Your task to perform on an android device: turn off notifications settings in the gmail app Image 0: 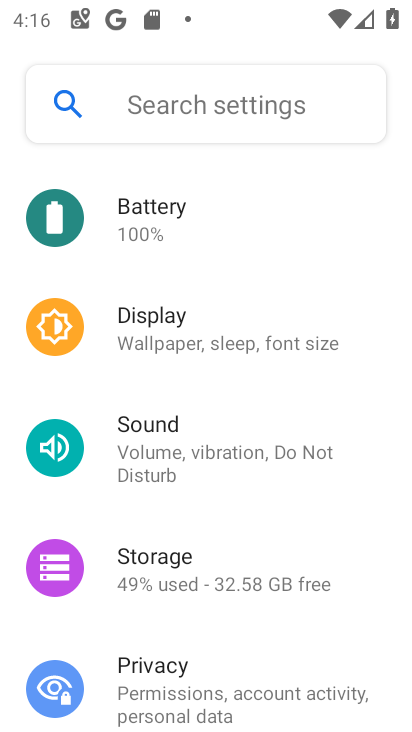
Step 0: press home button
Your task to perform on an android device: turn off notifications settings in the gmail app Image 1: 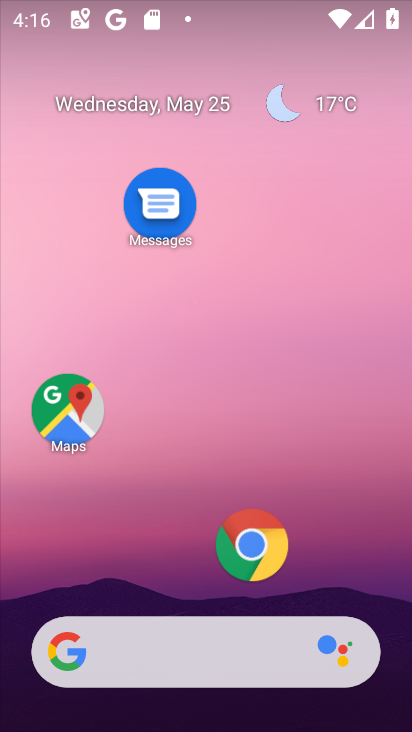
Step 1: drag from (322, 569) to (328, 19)
Your task to perform on an android device: turn off notifications settings in the gmail app Image 2: 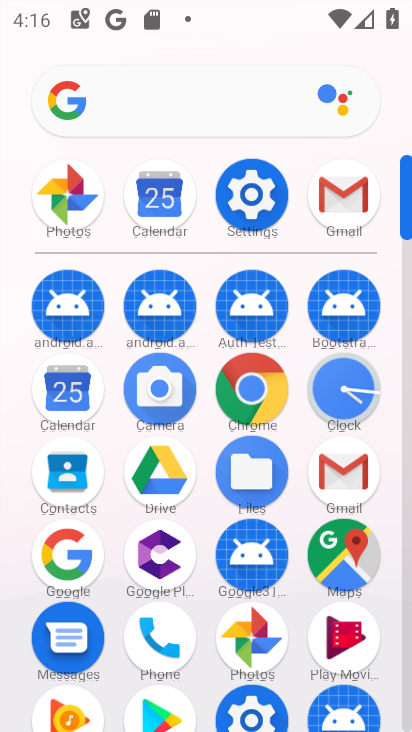
Step 2: click (337, 479)
Your task to perform on an android device: turn off notifications settings in the gmail app Image 3: 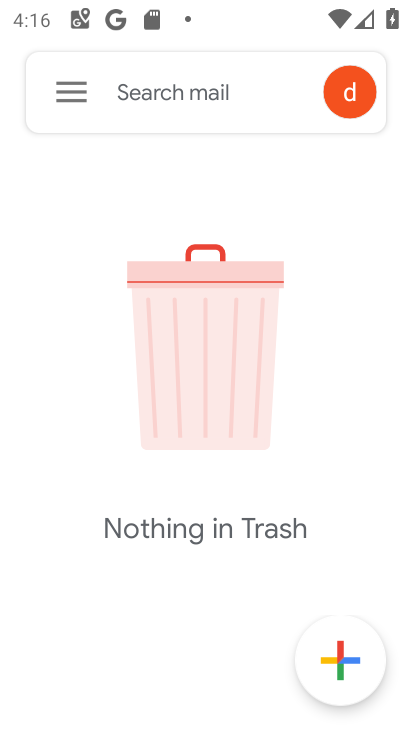
Step 3: click (59, 106)
Your task to perform on an android device: turn off notifications settings in the gmail app Image 4: 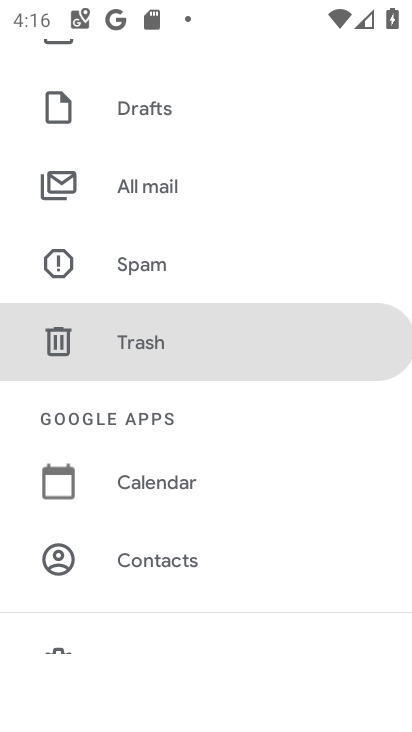
Step 4: drag from (237, 594) to (249, 296)
Your task to perform on an android device: turn off notifications settings in the gmail app Image 5: 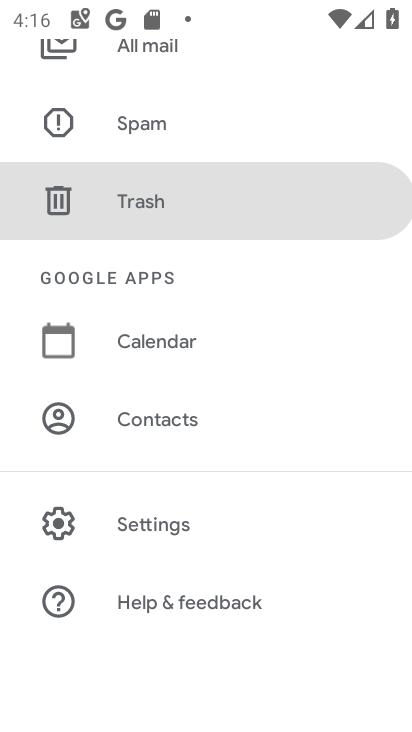
Step 5: click (152, 516)
Your task to perform on an android device: turn off notifications settings in the gmail app Image 6: 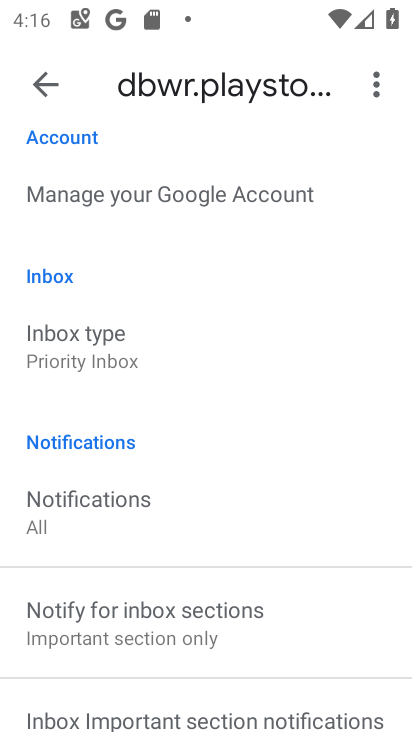
Step 6: drag from (240, 546) to (243, 206)
Your task to perform on an android device: turn off notifications settings in the gmail app Image 7: 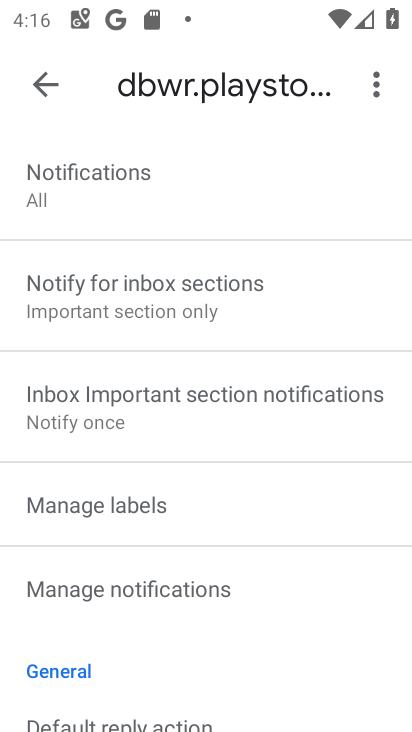
Step 7: click (157, 578)
Your task to perform on an android device: turn off notifications settings in the gmail app Image 8: 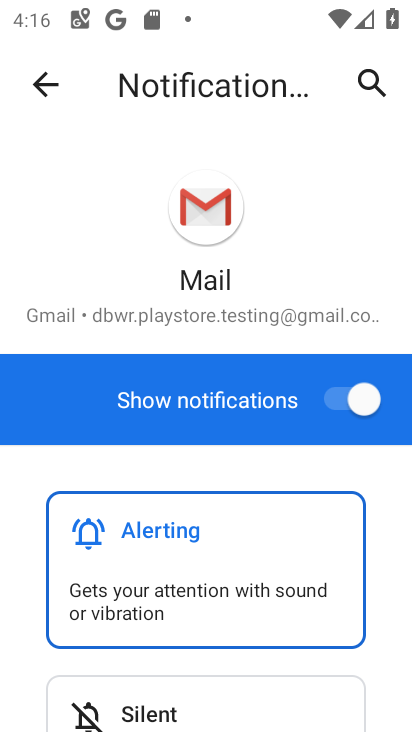
Step 8: click (329, 398)
Your task to perform on an android device: turn off notifications settings in the gmail app Image 9: 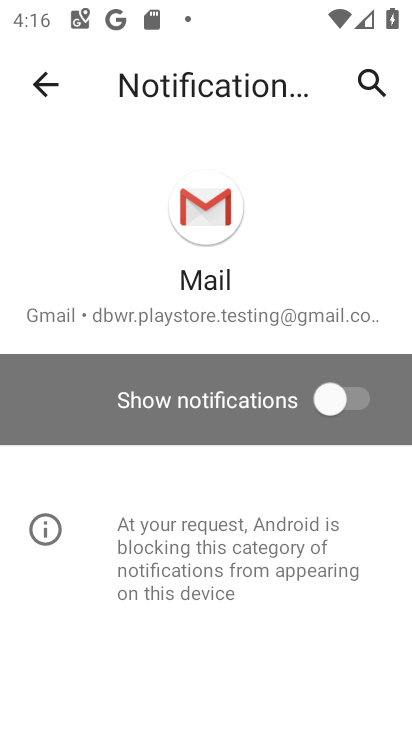
Step 9: task complete